Your task to perform on an android device: turn on showing notifications on the lock screen Image 0: 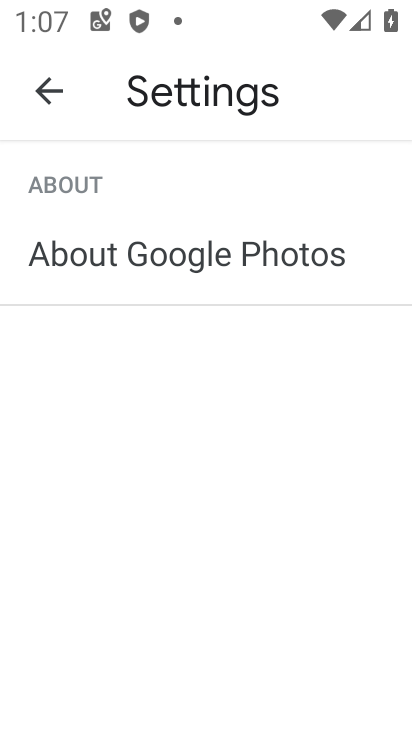
Step 0: press home button
Your task to perform on an android device: turn on showing notifications on the lock screen Image 1: 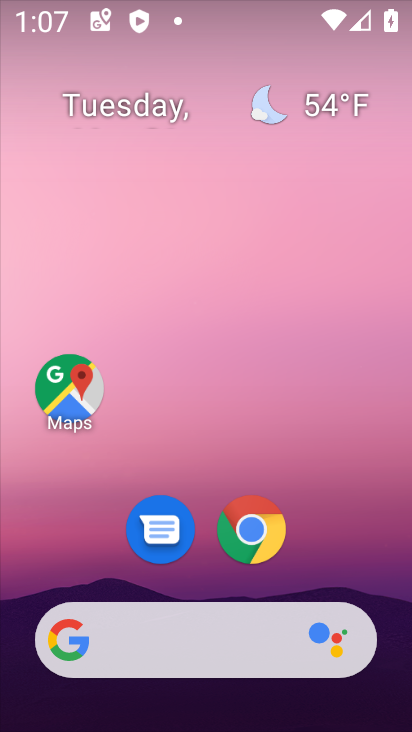
Step 1: drag from (343, 535) to (316, 124)
Your task to perform on an android device: turn on showing notifications on the lock screen Image 2: 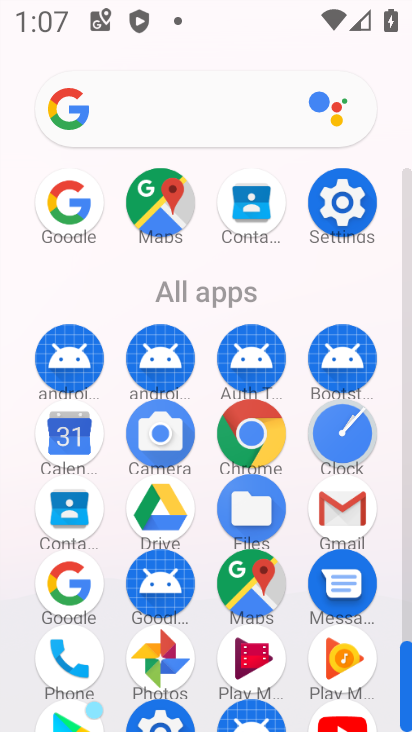
Step 2: click (343, 201)
Your task to perform on an android device: turn on showing notifications on the lock screen Image 3: 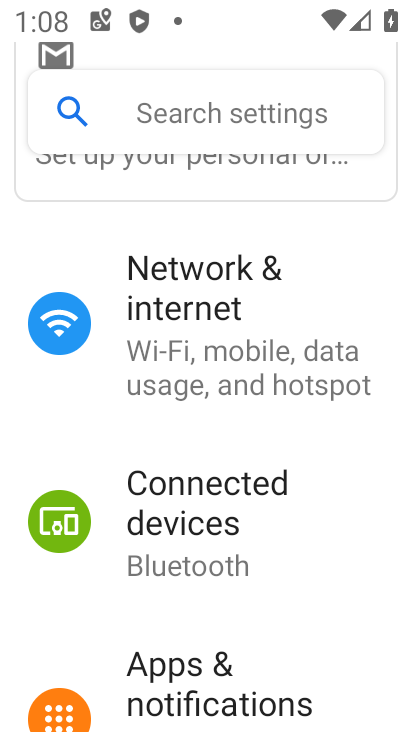
Step 3: drag from (157, 604) to (215, 452)
Your task to perform on an android device: turn on showing notifications on the lock screen Image 4: 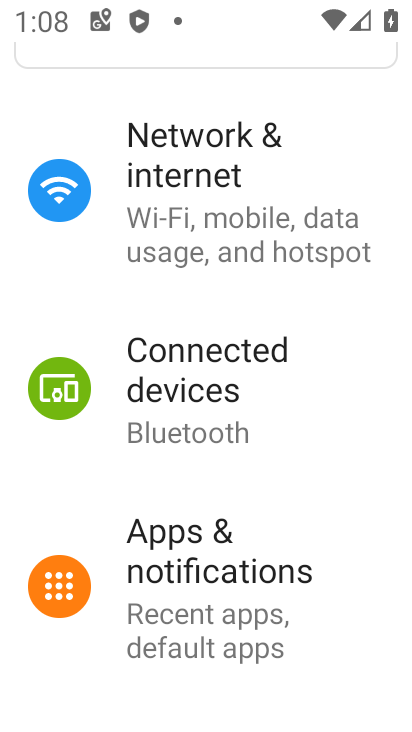
Step 4: click (216, 557)
Your task to perform on an android device: turn on showing notifications on the lock screen Image 5: 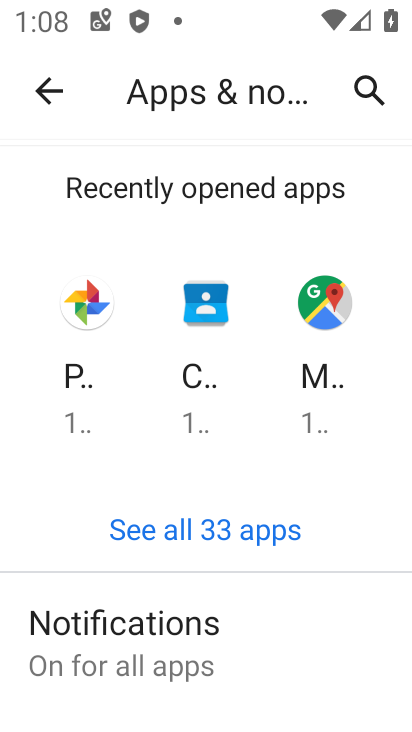
Step 5: click (151, 619)
Your task to perform on an android device: turn on showing notifications on the lock screen Image 6: 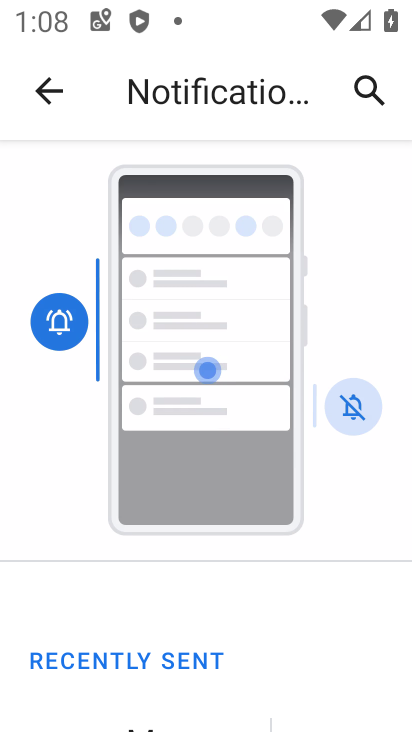
Step 6: drag from (181, 627) to (282, 441)
Your task to perform on an android device: turn on showing notifications on the lock screen Image 7: 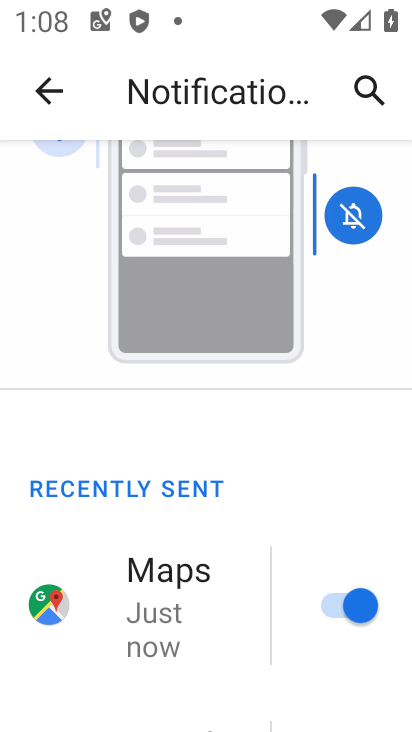
Step 7: drag from (189, 441) to (276, 263)
Your task to perform on an android device: turn on showing notifications on the lock screen Image 8: 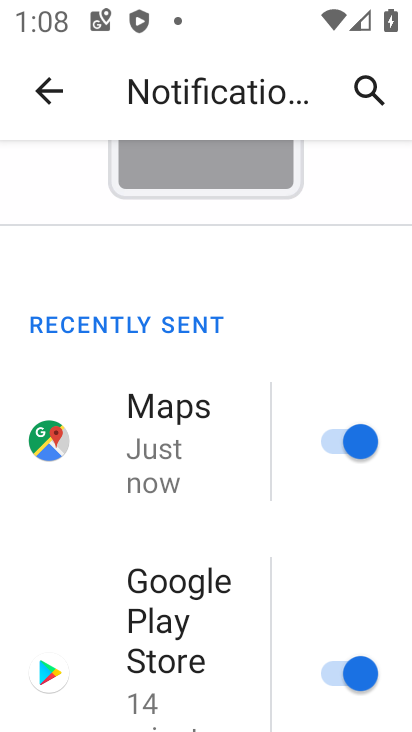
Step 8: drag from (171, 549) to (228, 379)
Your task to perform on an android device: turn on showing notifications on the lock screen Image 9: 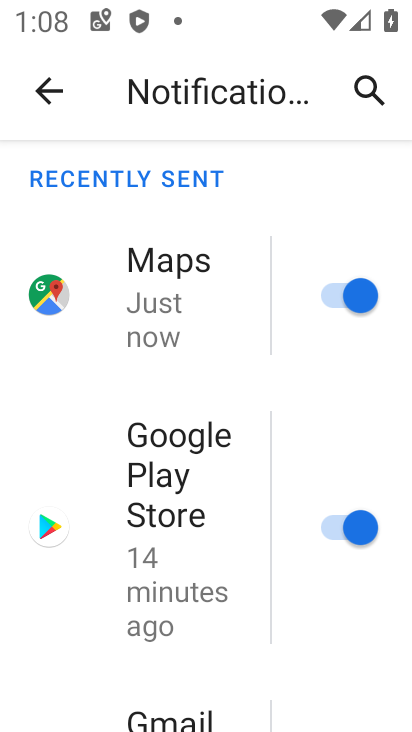
Step 9: drag from (161, 666) to (231, 397)
Your task to perform on an android device: turn on showing notifications on the lock screen Image 10: 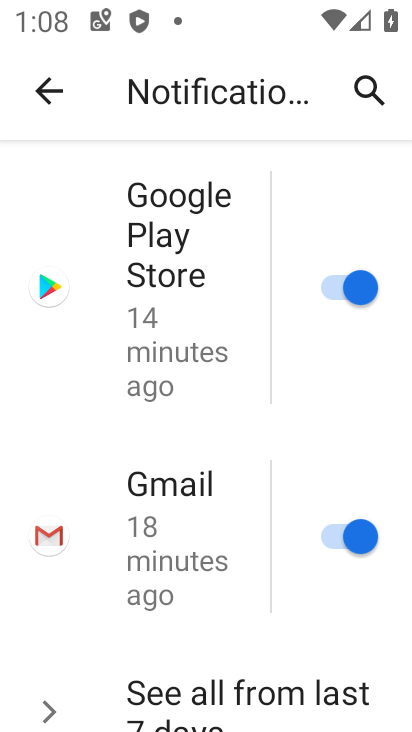
Step 10: drag from (187, 615) to (276, 443)
Your task to perform on an android device: turn on showing notifications on the lock screen Image 11: 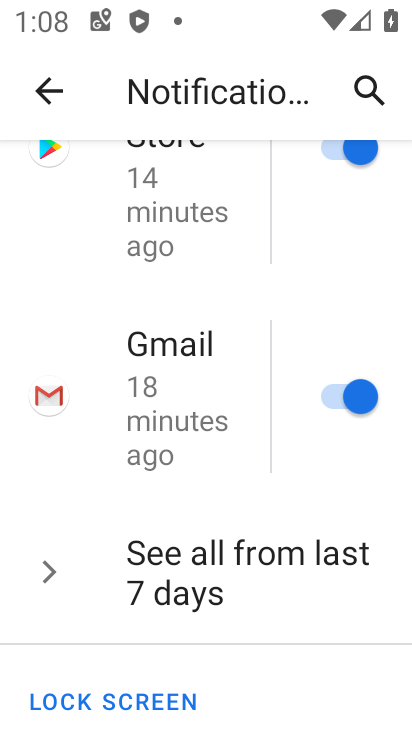
Step 11: drag from (219, 690) to (280, 538)
Your task to perform on an android device: turn on showing notifications on the lock screen Image 12: 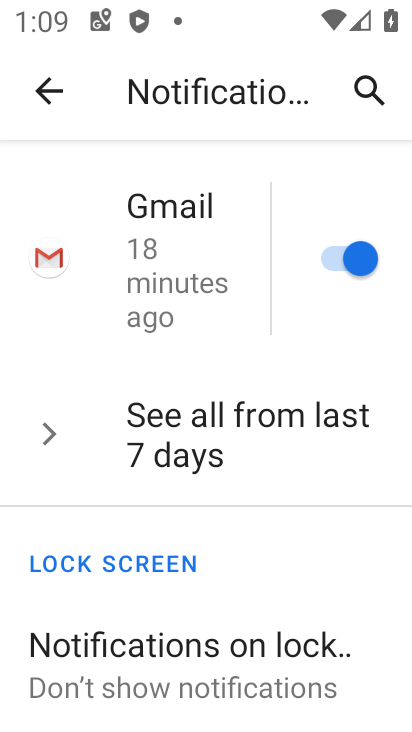
Step 12: click (236, 659)
Your task to perform on an android device: turn on showing notifications on the lock screen Image 13: 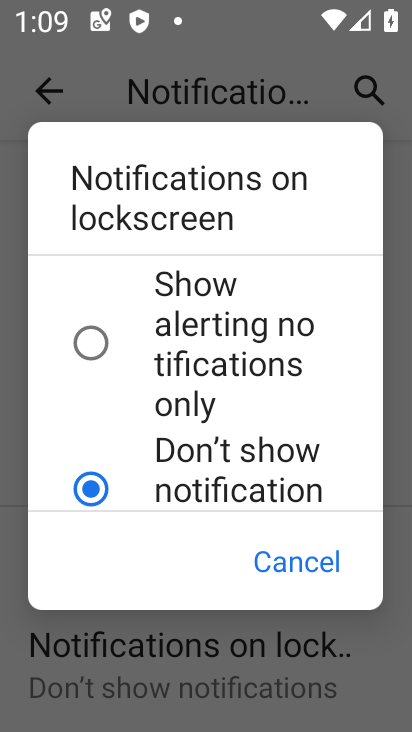
Step 13: drag from (220, 316) to (251, 479)
Your task to perform on an android device: turn on showing notifications on the lock screen Image 14: 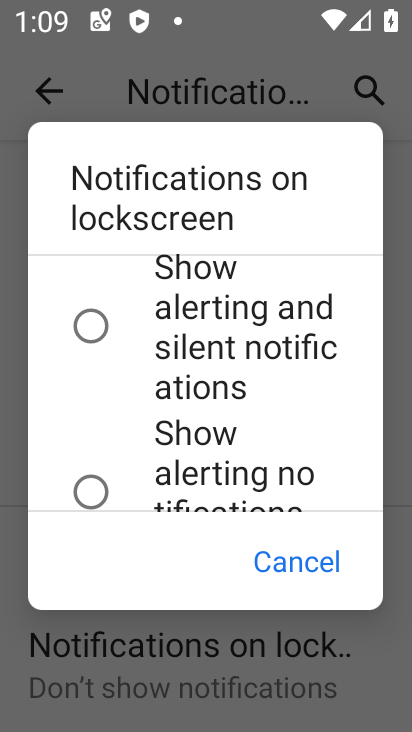
Step 14: click (102, 331)
Your task to perform on an android device: turn on showing notifications on the lock screen Image 15: 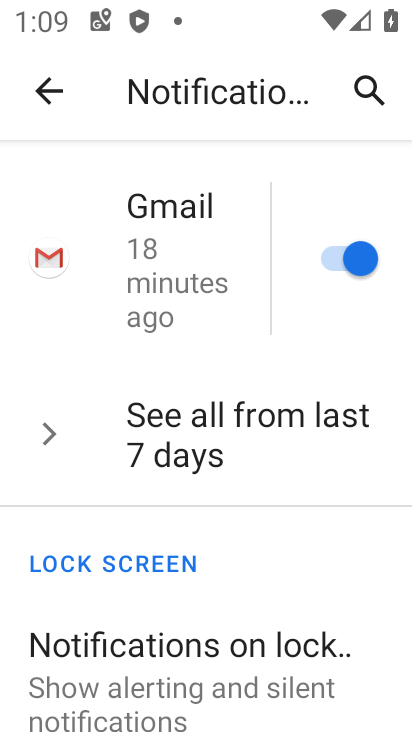
Step 15: task complete